Your task to perform on an android device: Open calendar and show me the third week of next month Image 0: 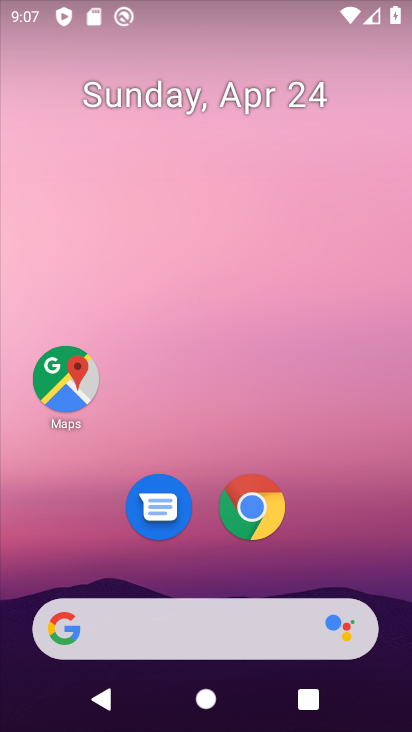
Step 0: drag from (348, 440) to (265, 74)
Your task to perform on an android device: Open calendar and show me the third week of next month Image 1: 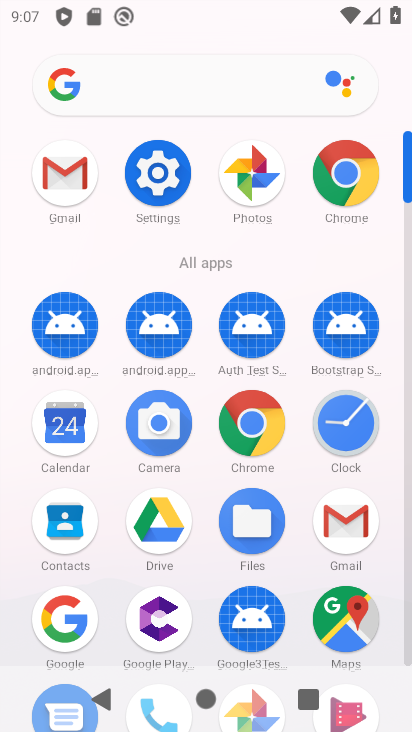
Step 1: click (59, 435)
Your task to perform on an android device: Open calendar and show me the third week of next month Image 2: 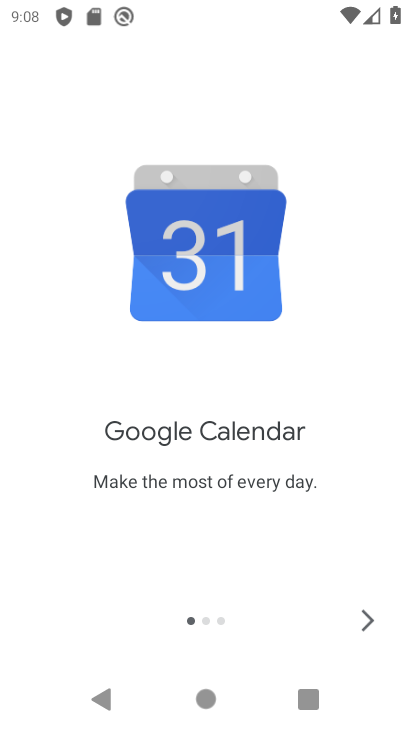
Step 2: click (367, 618)
Your task to perform on an android device: Open calendar and show me the third week of next month Image 3: 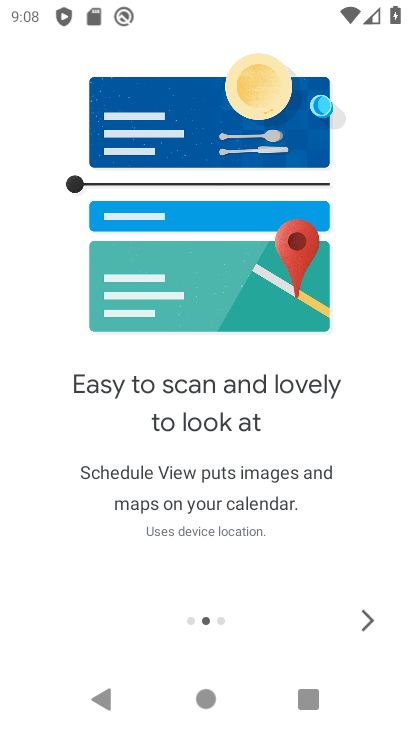
Step 3: click (360, 633)
Your task to perform on an android device: Open calendar and show me the third week of next month Image 4: 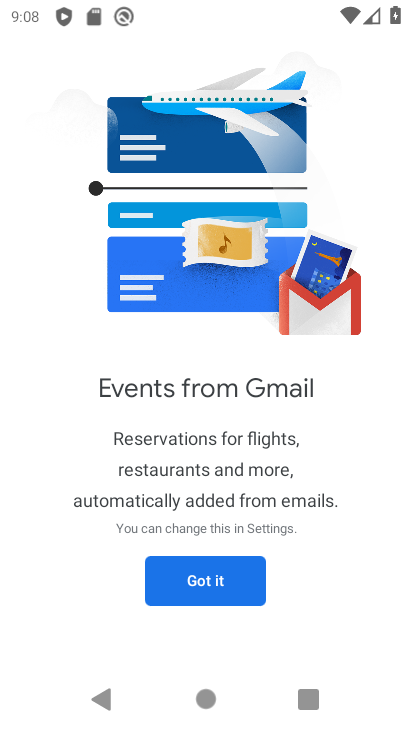
Step 4: click (182, 584)
Your task to perform on an android device: Open calendar and show me the third week of next month Image 5: 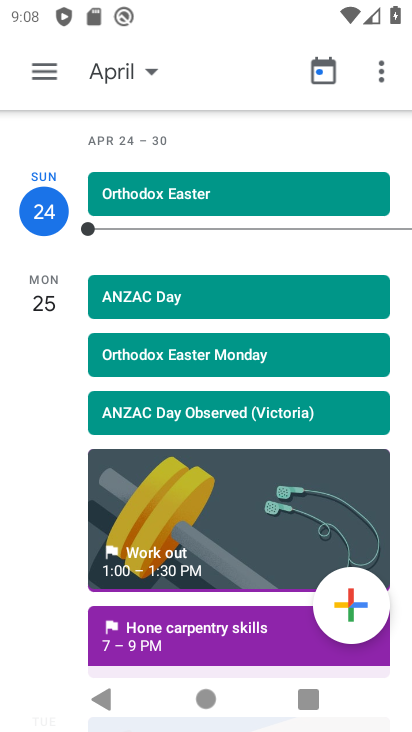
Step 5: click (141, 70)
Your task to perform on an android device: Open calendar and show me the third week of next month Image 6: 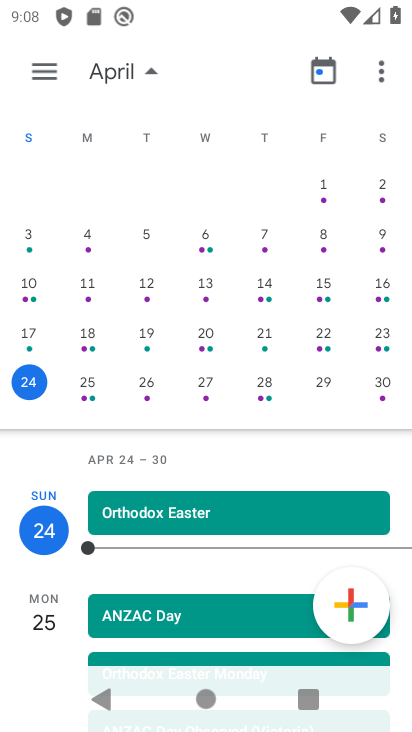
Step 6: drag from (310, 354) to (35, 599)
Your task to perform on an android device: Open calendar and show me the third week of next month Image 7: 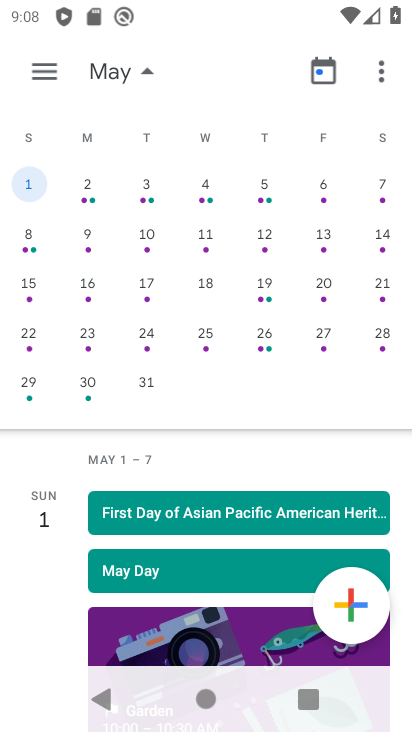
Step 7: click (373, 284)
Your task to perform on an android device: Open calendar and show me the third week of next month Image 8: 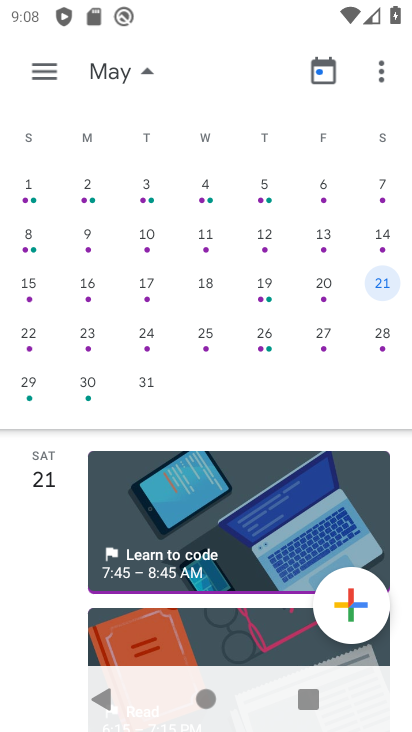
Step 8: task complete